Your task to perform on an android device: move a message to another label in the gmail app Image 0: 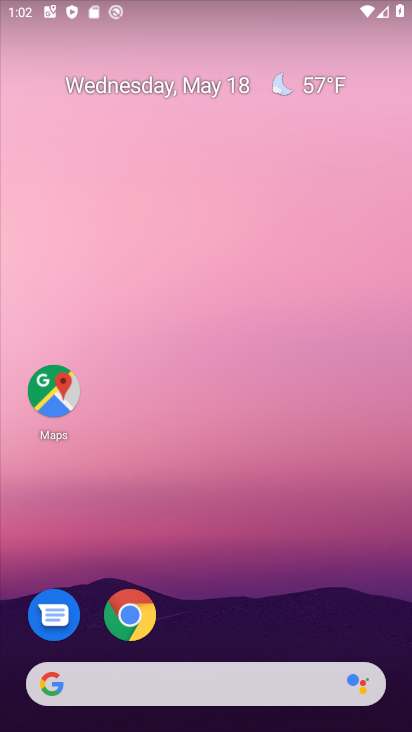
Step 0: drag from (382, 621) to (345, 74)
Your task to perform on an android device: move a message to another label in the gmail app Image 1: 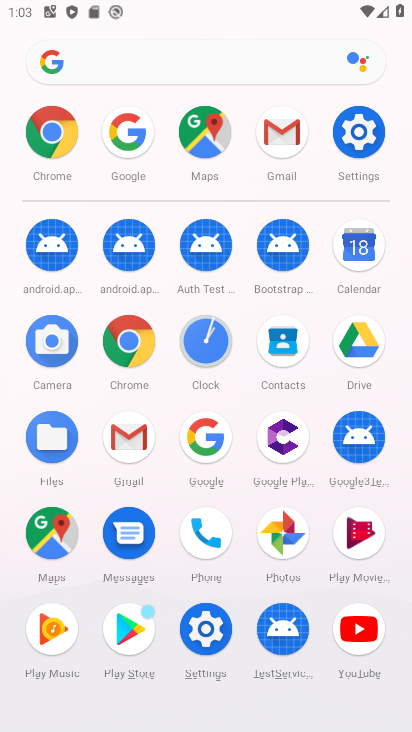
Step 1: click (126, 436)
Your task to perform on an android device: move a message to another label in the gmail app Image 2: 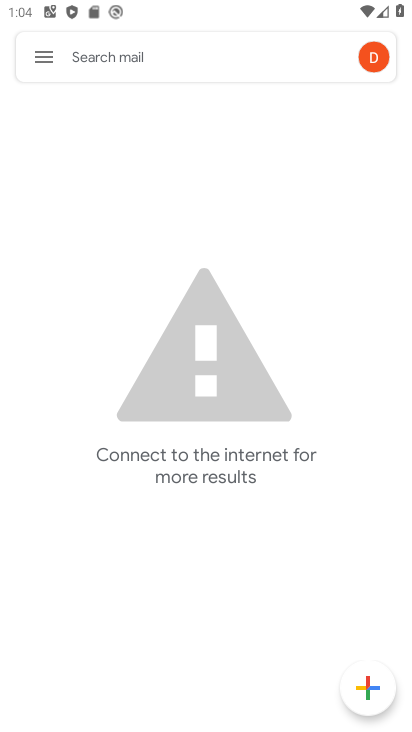
Step 2: task complete